Your task to perform on an android device: open chrome privacy settings Image 0: 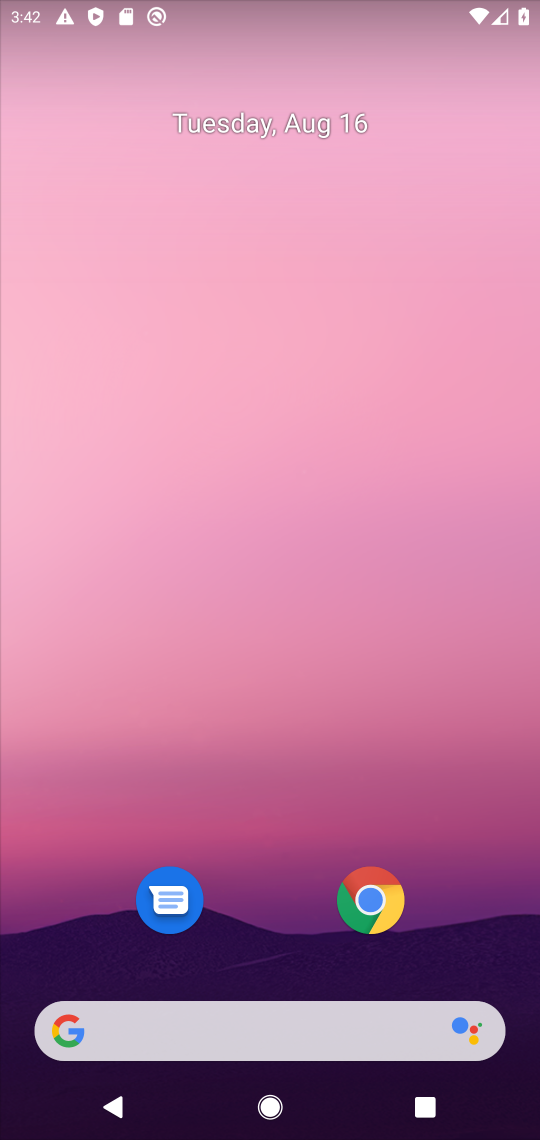
Step 0: drag from (238, 985) to (375, 13)
Your task to perform on an android device: open chrome privacy settings Image 1: 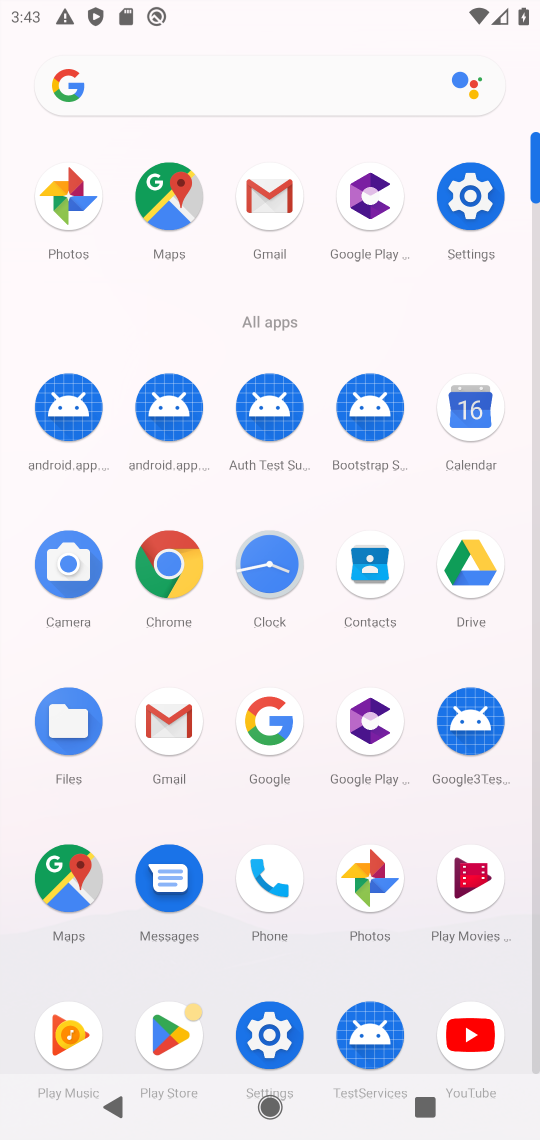
Step 1: click (173, 565)
Your task to perform on an android device: open chrome privacy settings Image 2: 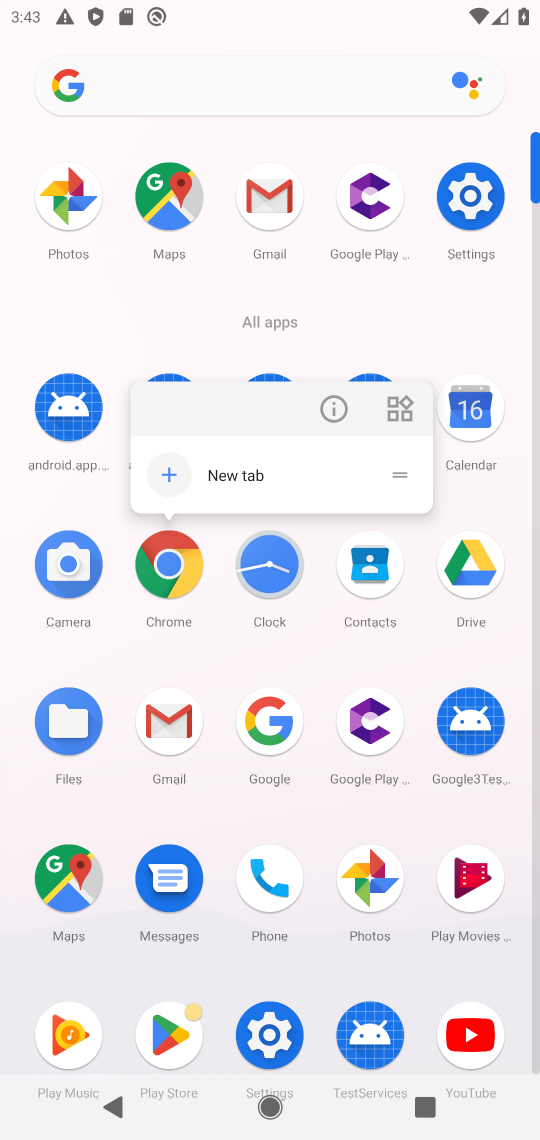
Step 2: click (183, 597)
Your task to perform on an android device: open chrome privacy settings Image 3: 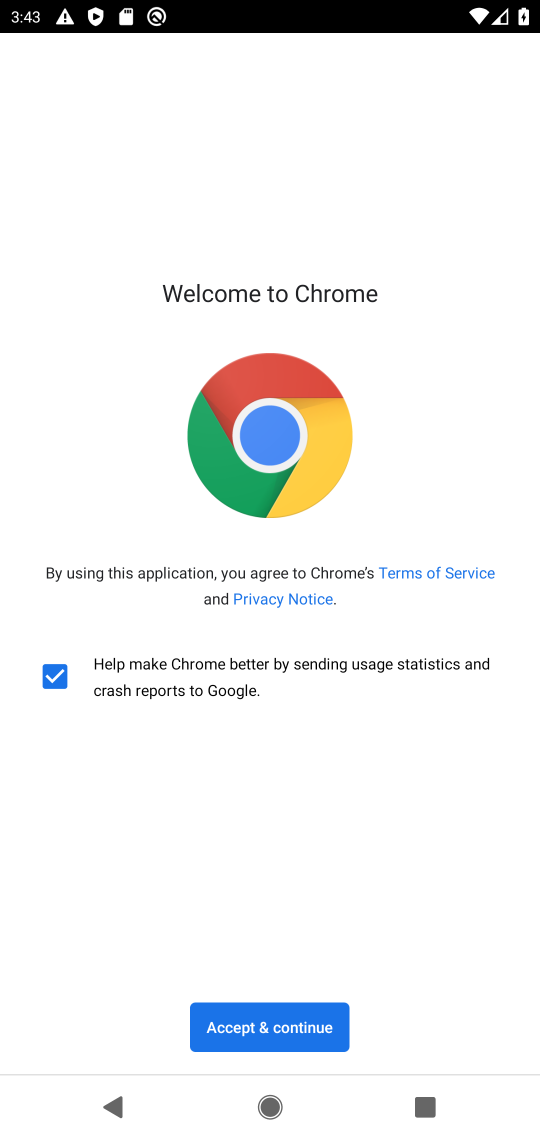
Step 3: click (309, 1028)
Your task to perform on an android device: open chrome privacy settings Image 4: 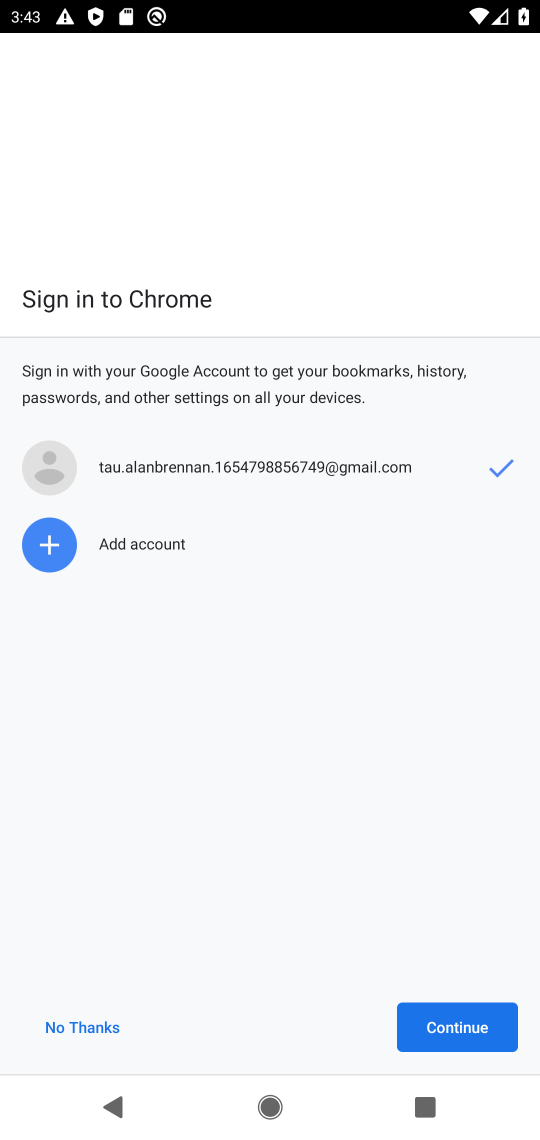
Step 4: click (471, 1027)
Your task to perform on an android device: open chrome privacy settings Image 5: 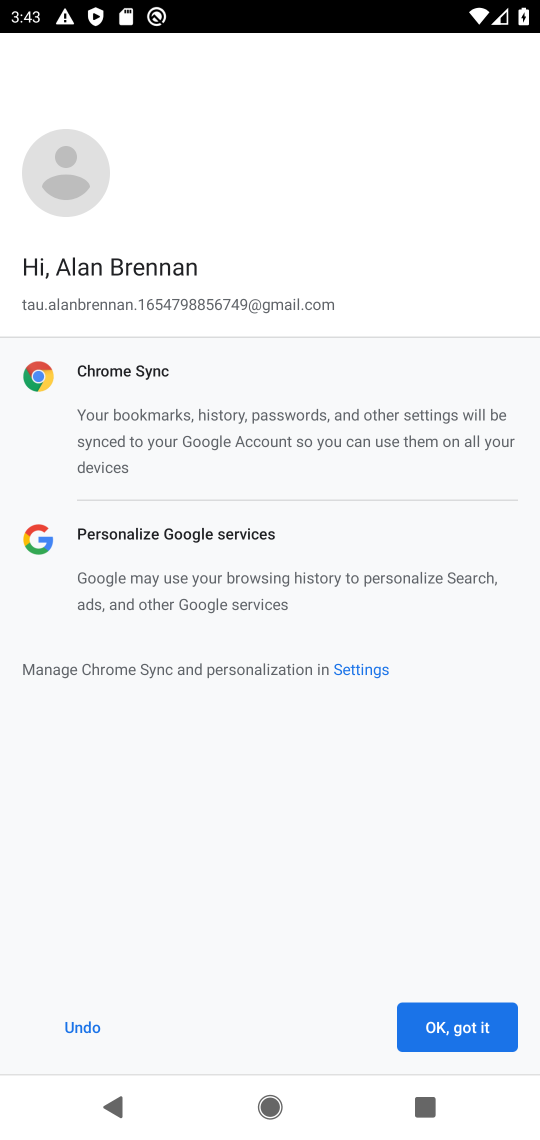
Step 5: click (451, 1017)
Your task to perform on an android device: open chrome privacy settings Image 6: 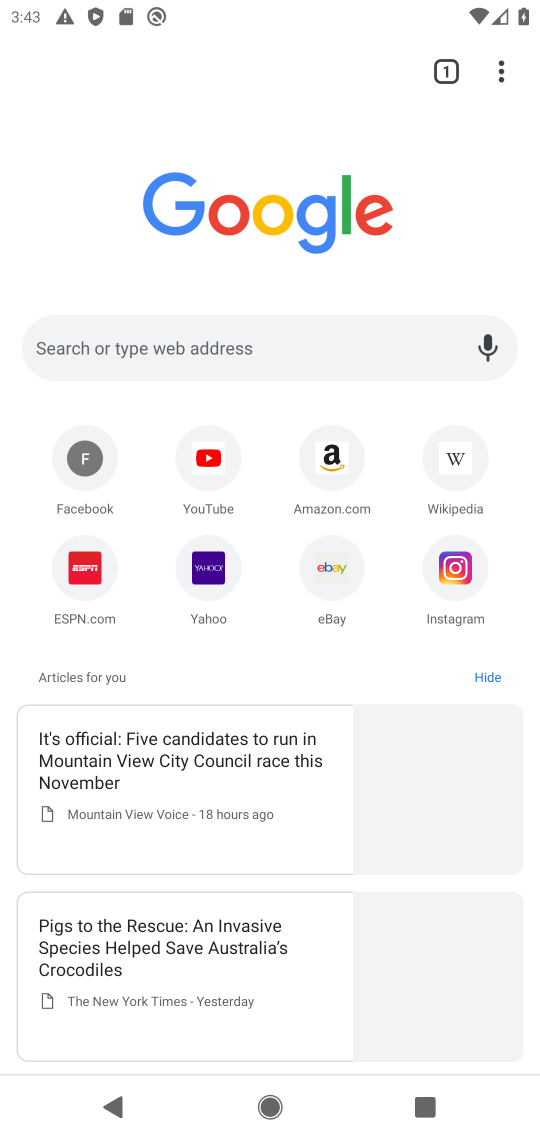
Step 6: click (505, 70)
Your task to perform on an android device: open chrome privacy settings Image 7: 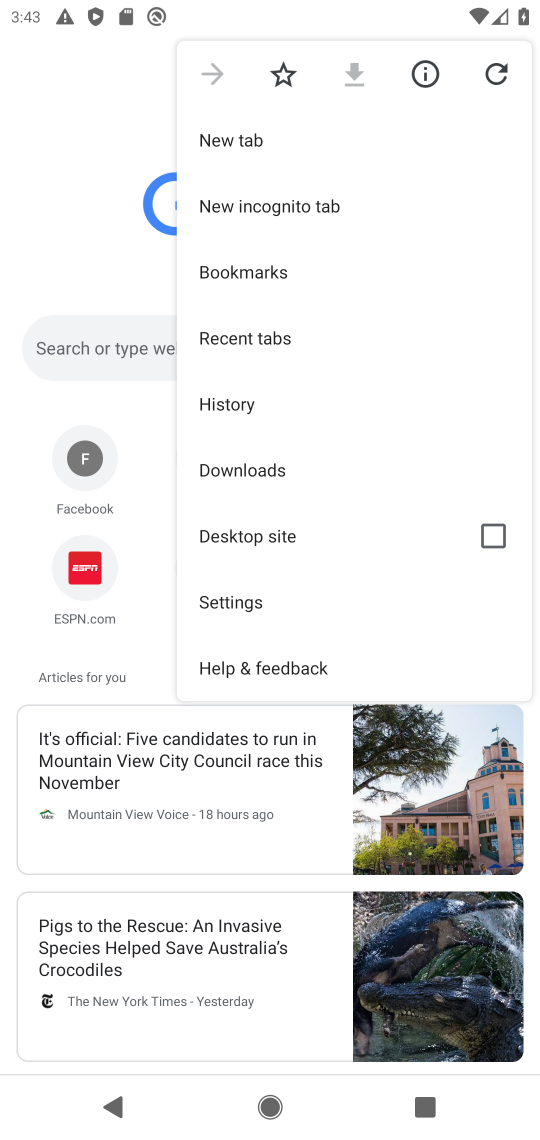
Step 7: click (249, 613)
Your task to perform on an android device: open chrome privacy settings Image 8: 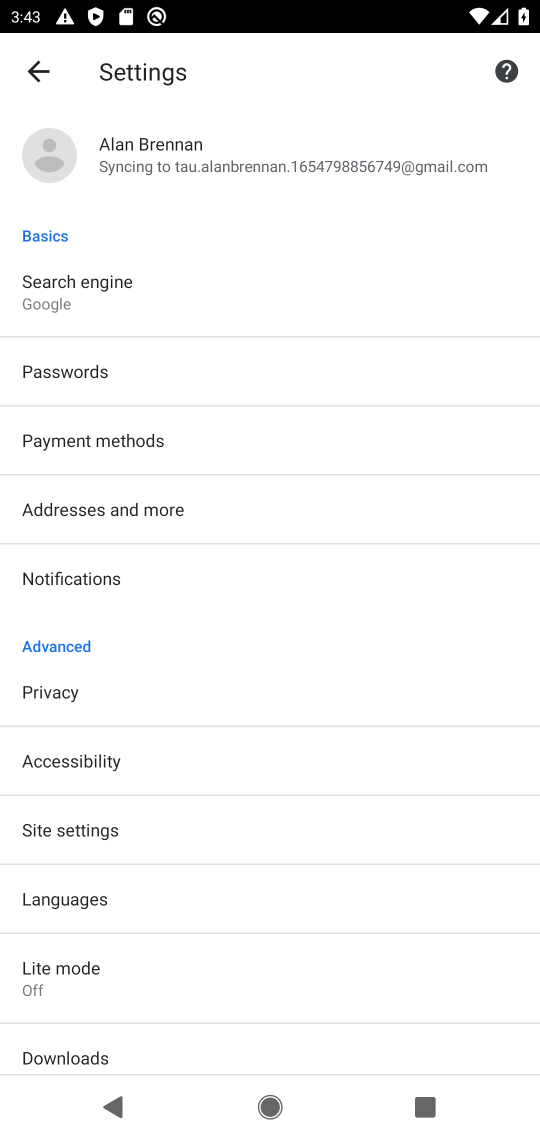
Step 8: click (91, 684)
Your task to perform on an android device: open chrome privacy settings Image 9: 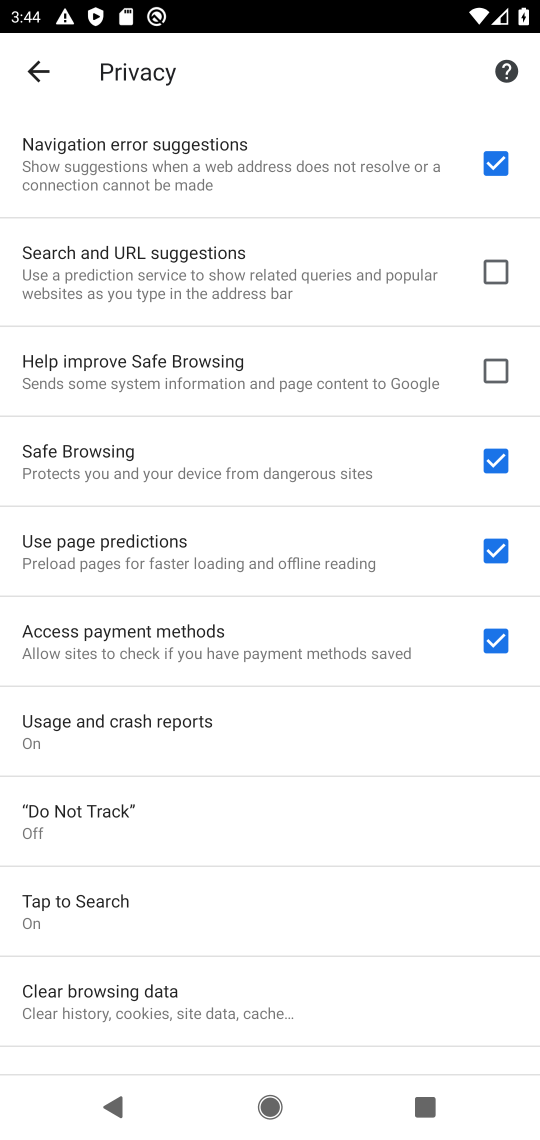
Step 9: task complete